Your task to perform on an android device: allow notifications from all sites in the chrome app Image 0: 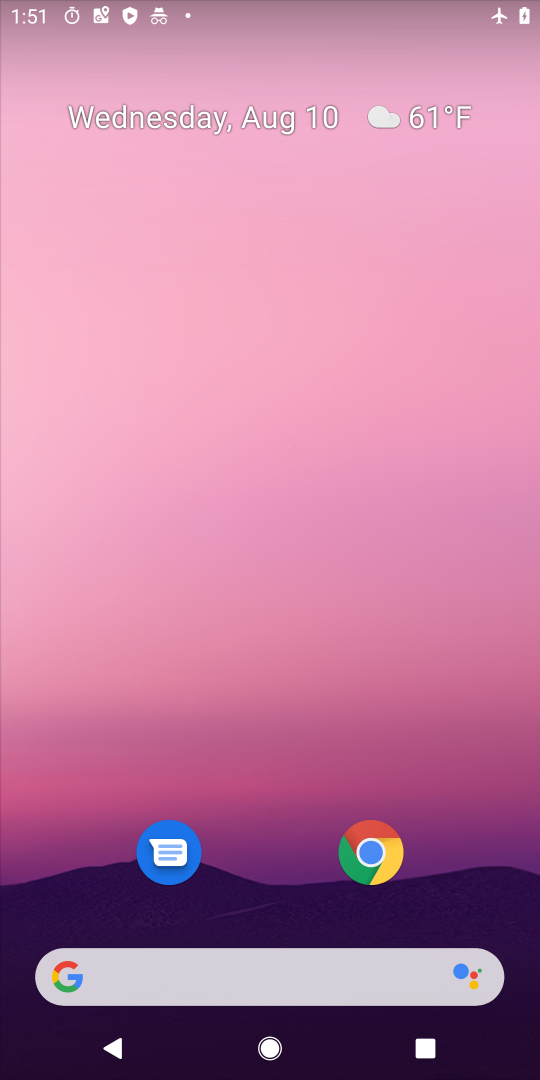
Step 0: drag from (243, 846) to (326, 19)
Your task to perform on an android device: allow notifications from all sites in the chrome app Image 1: 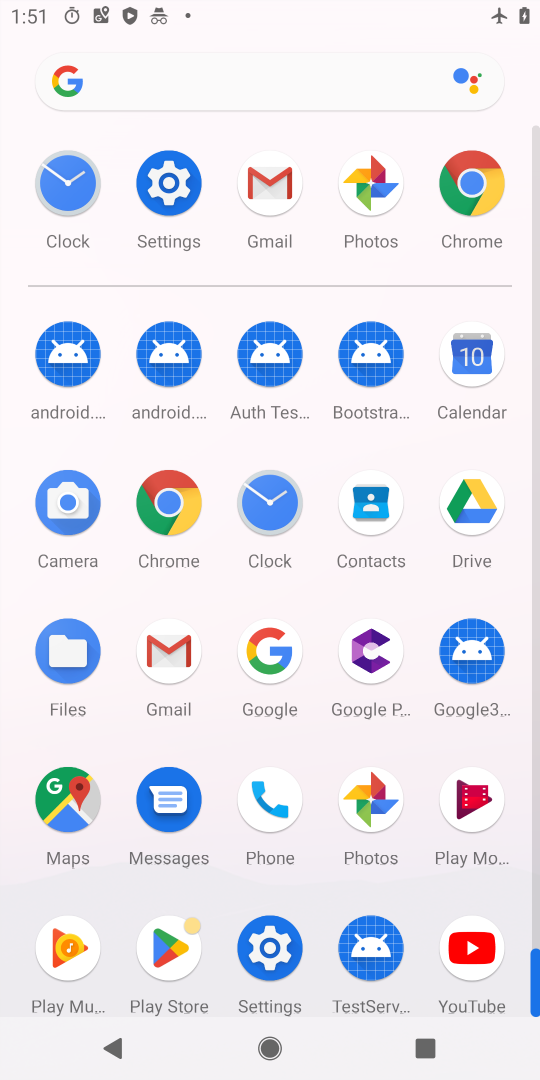
Step 1: click (172, 509)
Your task to perform on an android device: allow notifications from all sites in the chrome app Image 2: 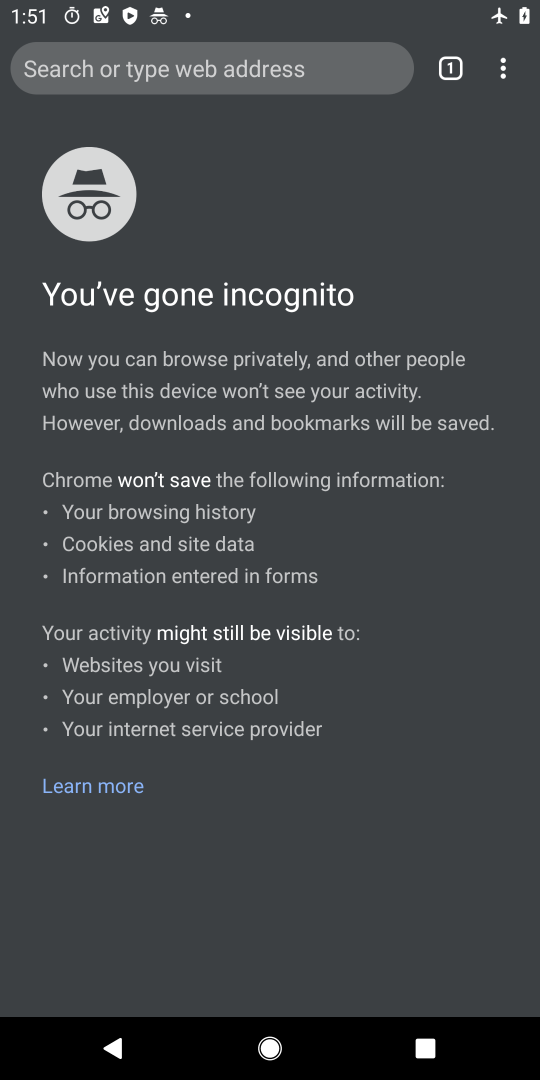
Step 2: drag from (500, 66) to (378, 494)
Your task to perform on an android device: allow notifications from all sites in the chrome app Image 3: 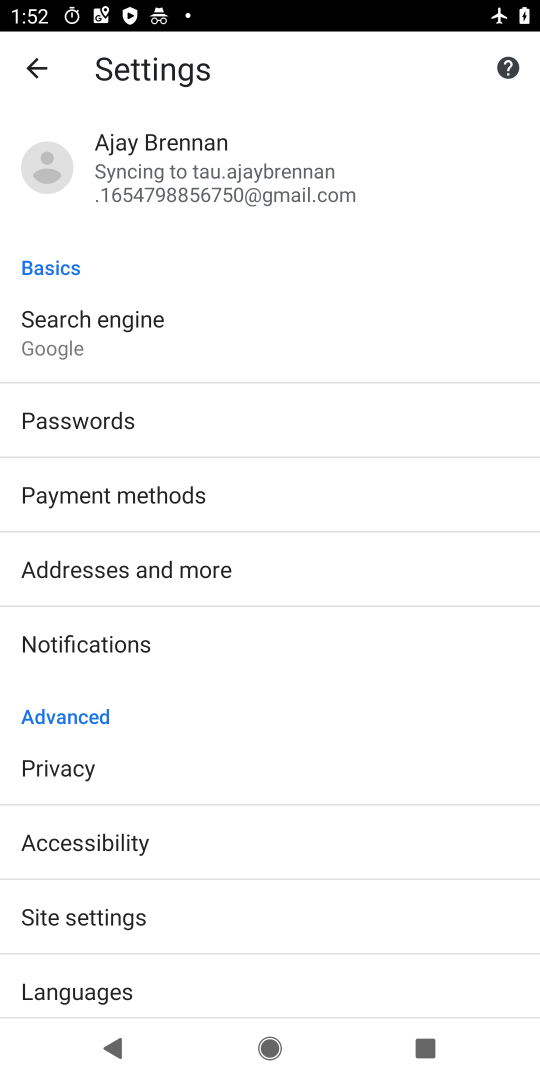
Step 3: drag from (252, 847) to (263, 553)
Your task to perform on an android device: allow notifications from all sites in the chrome app Image 4: 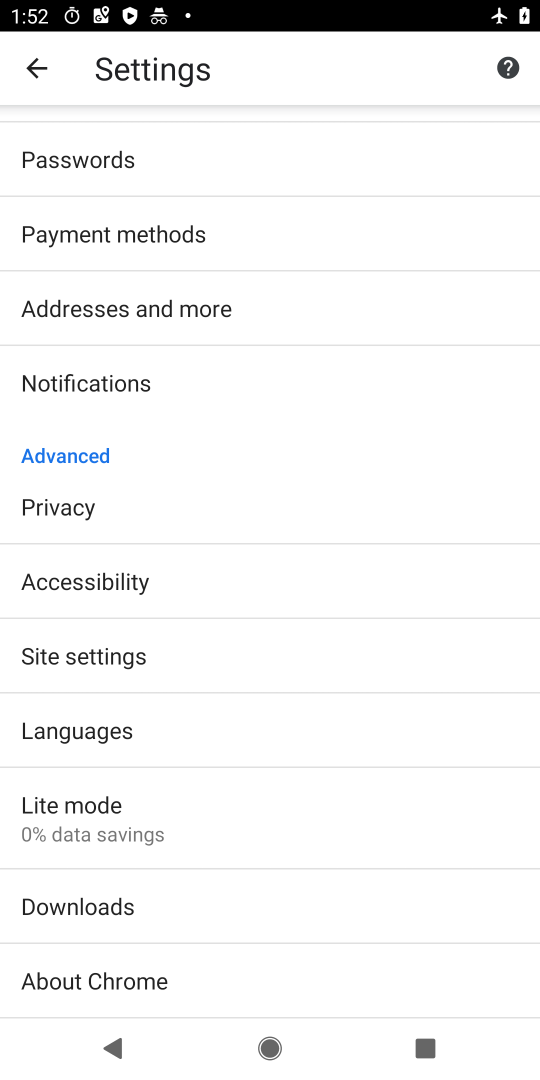
Step 4: drag from (182, 233) to (165, 693)
Your task to perform on an android device: allow notifications from all sites in the chrome app Image 5: 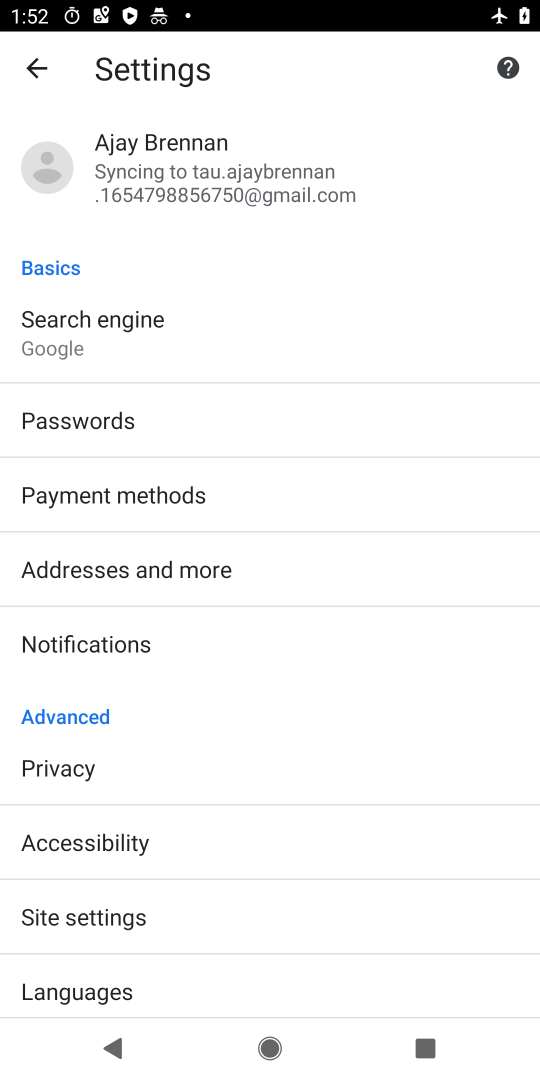
Step 5: drag from (258, 881) to (366, 562)
Your task to perform on an android device: allow notifications from all sites in the chrome app Image 6: 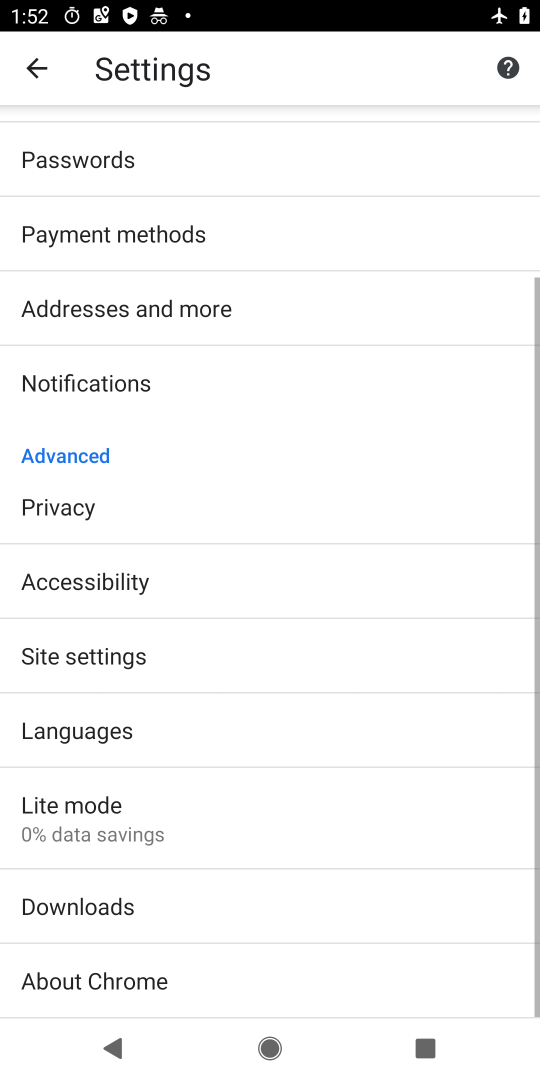
Step 6: click (132, 665)
Your task to perform on an android device: allow notifications from all sites in the chrome app Image 7: 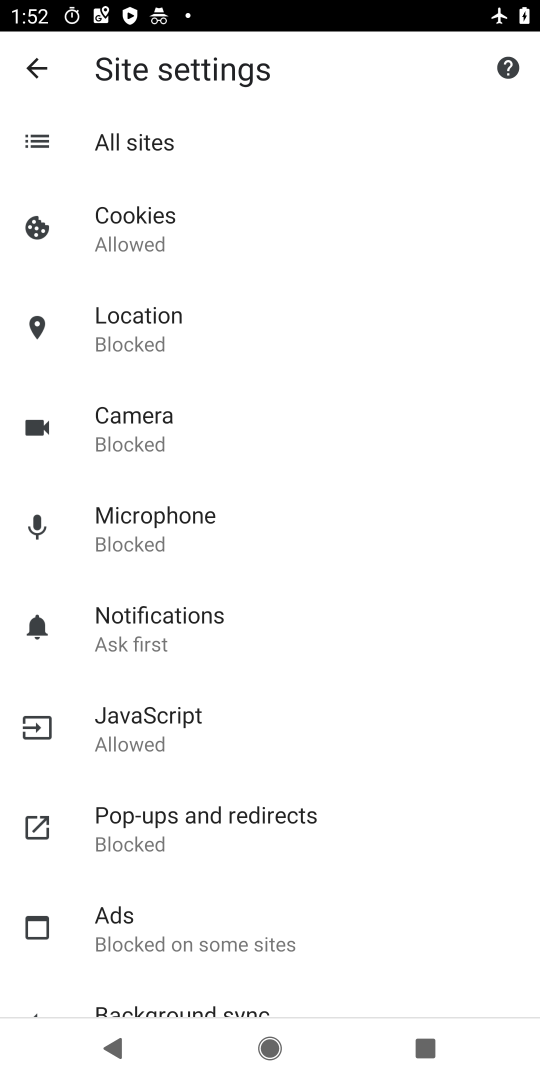
Step 7: drag from (306, 928) to (373, 440)
Your task to perform on an android device: allow notifications from all sites in the chrome app Image 8: 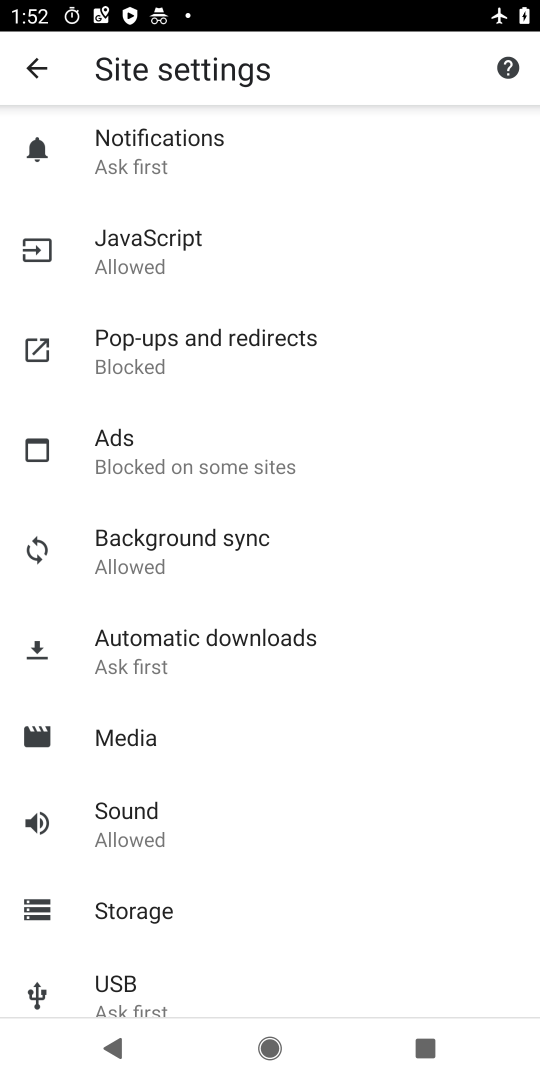
Step 8: drag from (375, 395) to (328, 963)
Your task to perform on an android device: allow notifications from all sites in the chrome app Image 9: 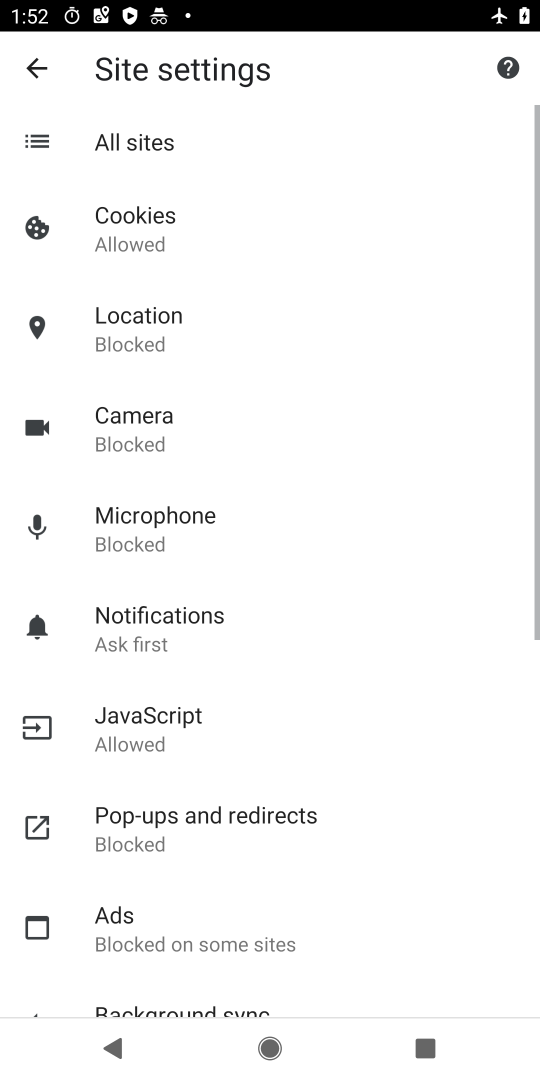
Step 9: drag from (386, 765) to (395, 219)
Your task to perform on an android device: allow notifications from all sites in the chrome app Image 10: 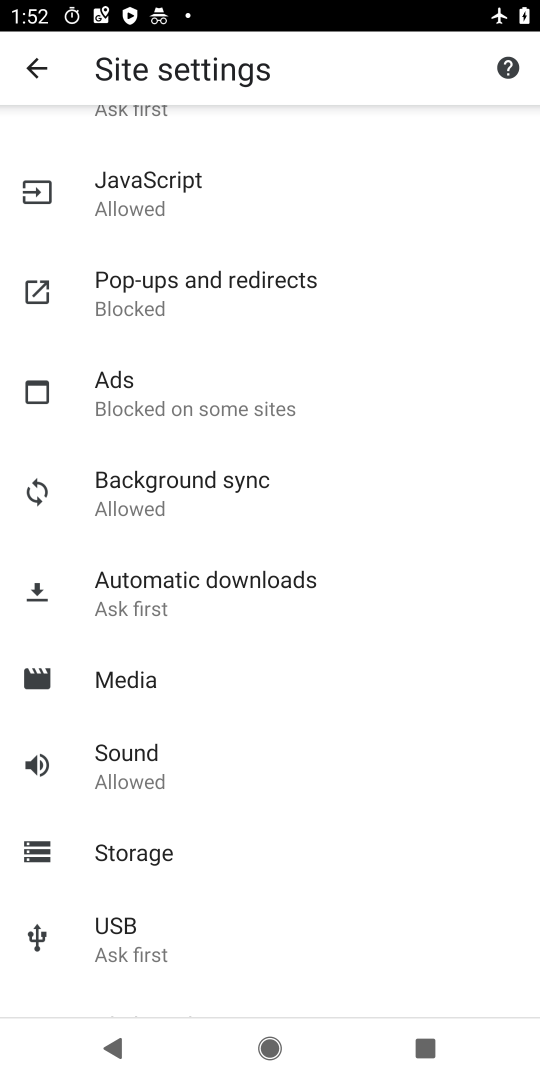
Step 10: drag from (346, 282) to (300, 773)
Your task to perform on an android device: allow notifications from all sites in the chrome app Image 11: 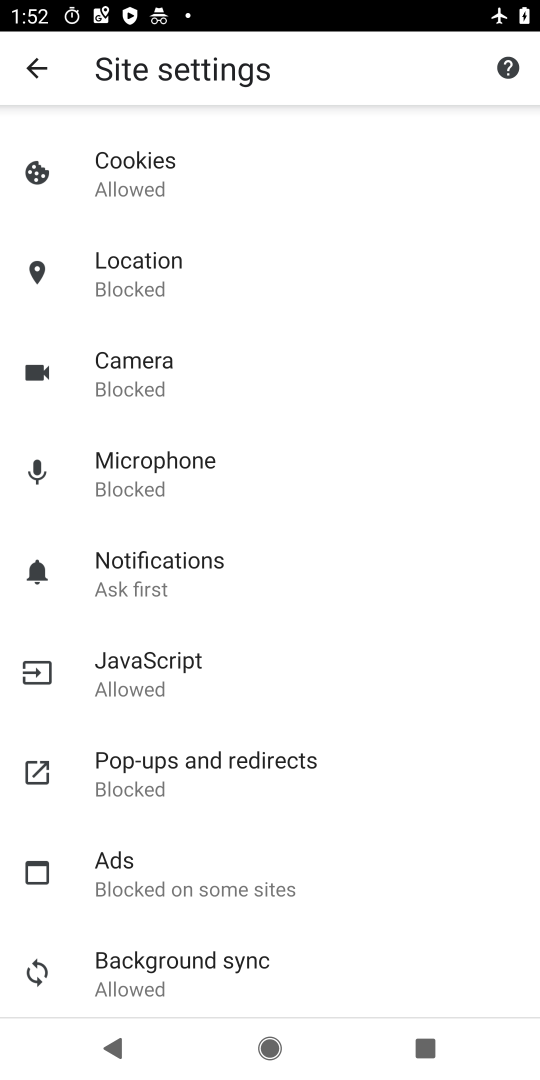
Step 11: click (159, 577)
Your task to perform on an android device: allow notifications from all sites in the chrome app Image 12: 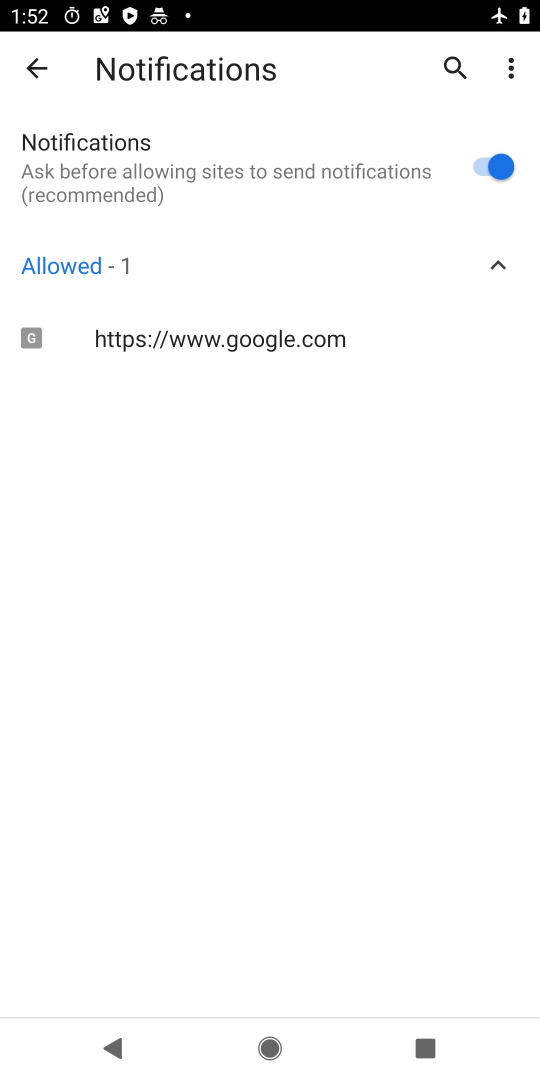
Step 12: task complete